Your task to perform on an android device: Check the weather Image 0: 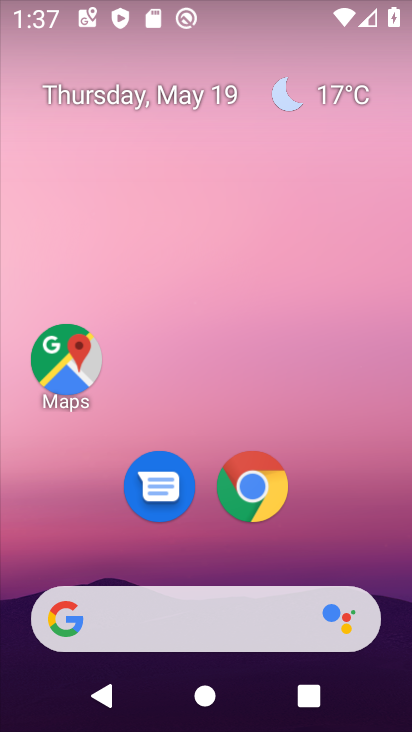
Step 0: click (322, 93)
Your task to perform on an android device: Check the weather Image 1: 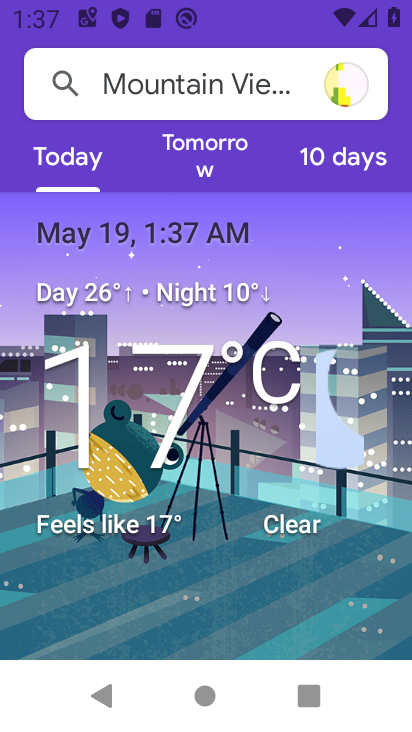
Step 1: task complete